Your task to perform on an android device: turn on sleep mode Image 0: 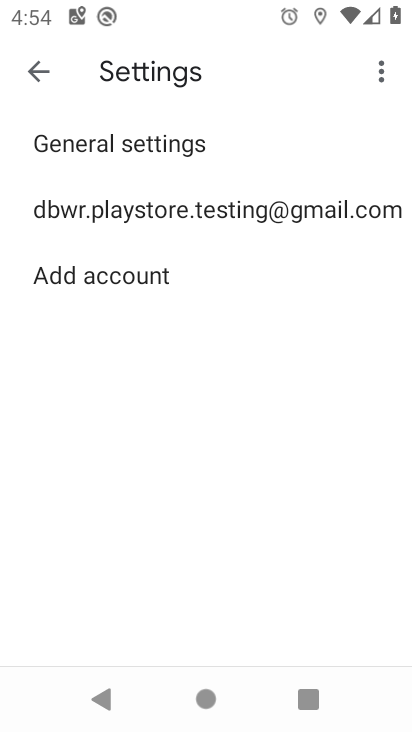
Step 0: press home button
Your task to perform on an android device: turn on sleep mode Image 1: 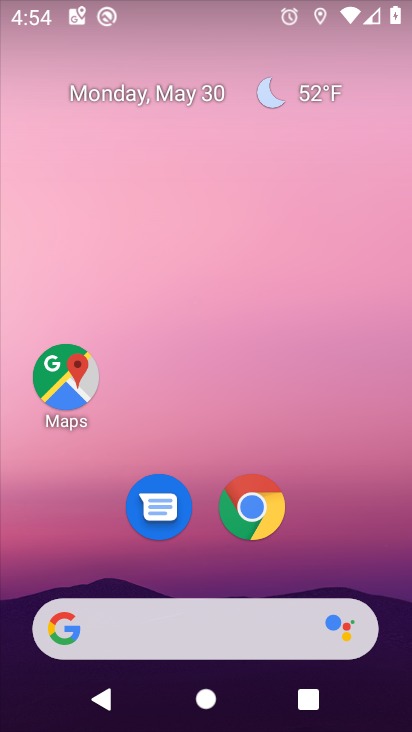
Step 1: drag from (367, 527) to (326, 224)
Your task to perform on an android device: turn on sleep mode Image 2: 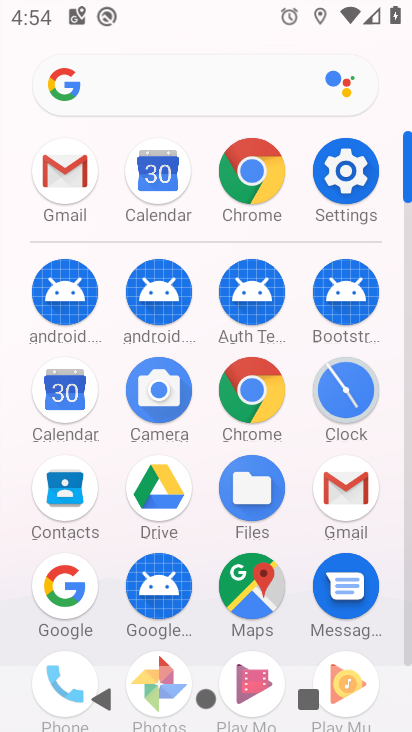
Step 2: click (363, 178)
Your task to perform on an android device: turn on sleep mode Image 3: 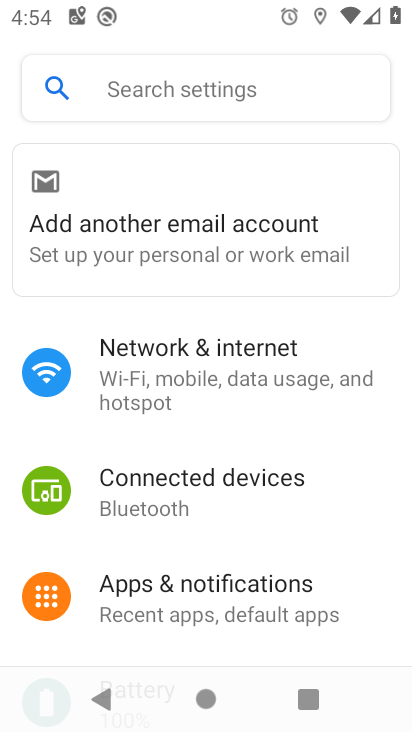
Step 3: drag from (114, 485) to (162, 156)
Your task to perform on an android device: turn on sleep mode Image 4: 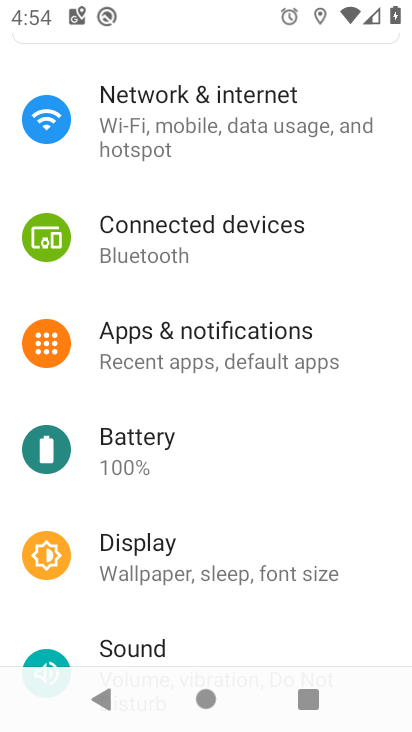
Step 4: click (110, 538)
Your task to perform on an android device: turn on sleep mode Image 5: 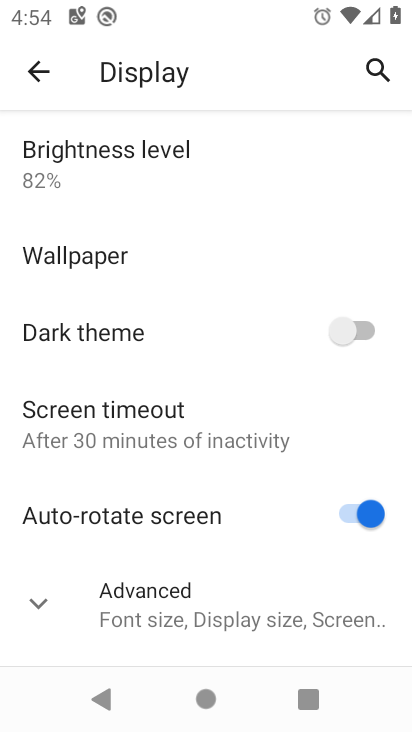
Step 5: task complete